Your task to perform on an android device: Toggle the flashlight Image 0: 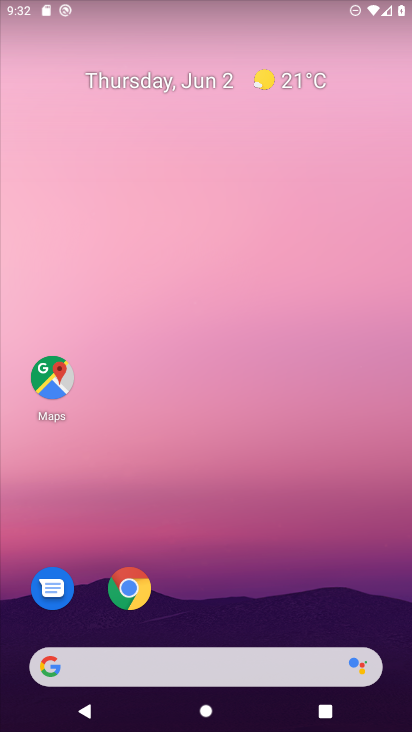
Step 0: drag from (223, 485) to (238, 230)
Your task to perform on an android device: Toggle the flashlight Image 1: 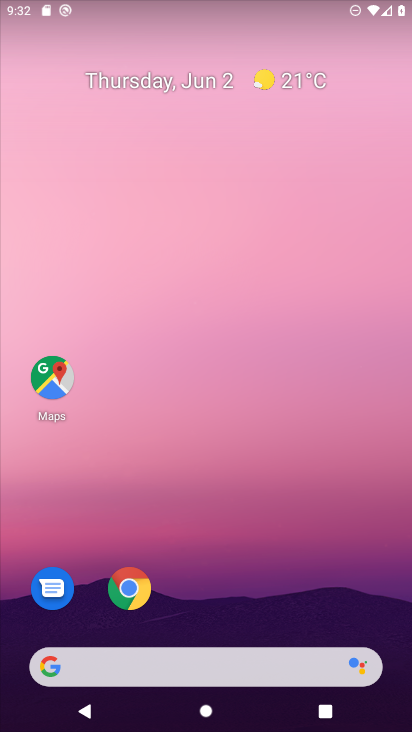
Step 1: task complete